Your task to perform on an android device: check storage Image 0: 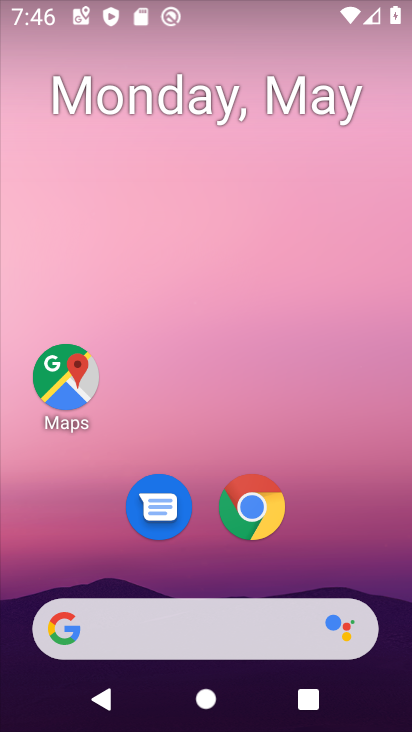
Step 0: drag from (205, 563) to (246, 33)
Your task to perform on an android device: check storage Image 1: 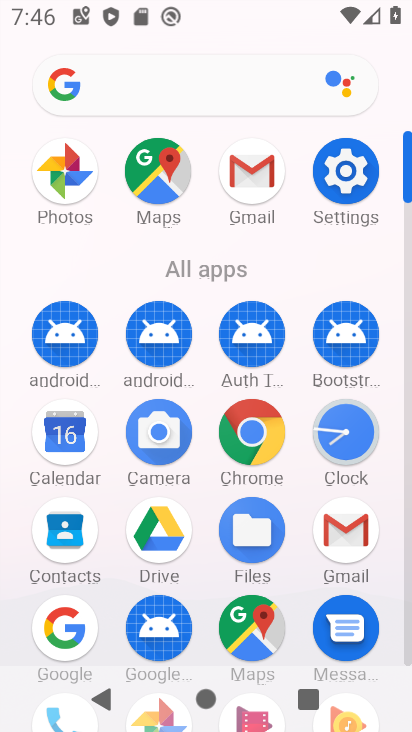
Step 1: click (343, 166)
Your task to perform on an android device: check storage Image 2: 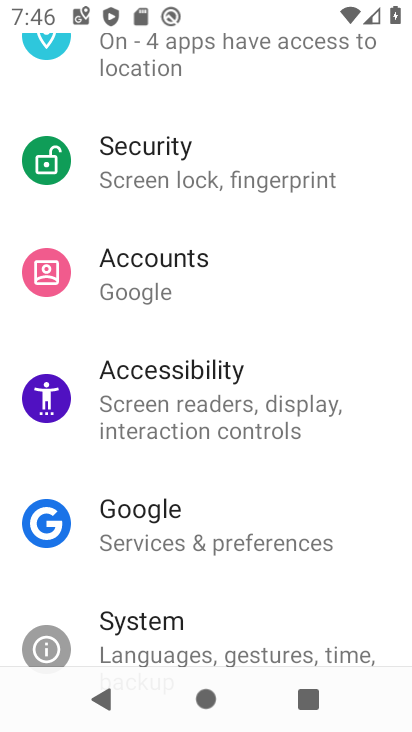
Step 2: drag from (208, 91) to (279, 649)
Your task to perform on an android device: check storage Image 3: 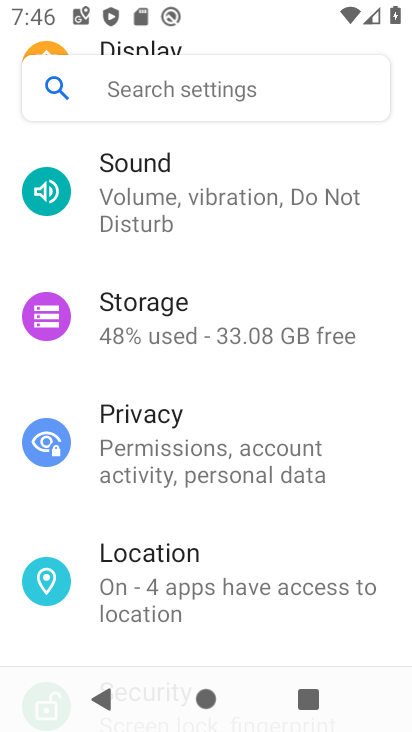
Step 3: click (200, 304)
Your task to perform on an android device: check storage Image 4: 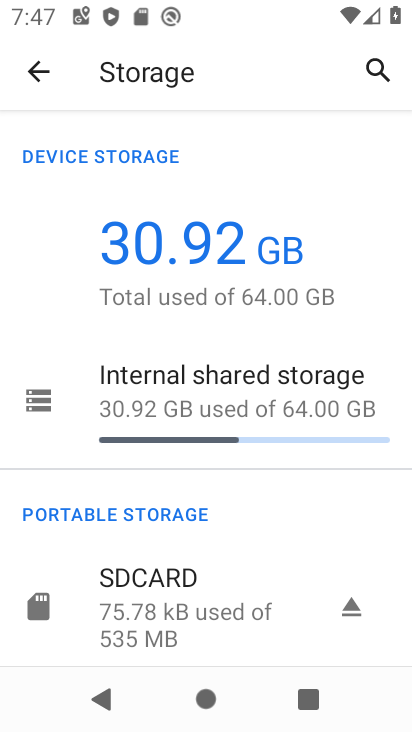
Step 4: task complete